Your task to perform on an android device: change your default location settings in chrome Image 0: 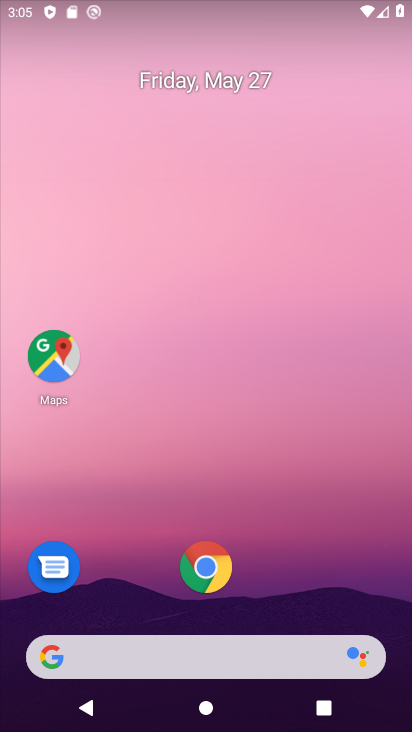
Step 0: click (209, 573)
Your task to perform on an android device: change your default location settings in chrome Image 1: 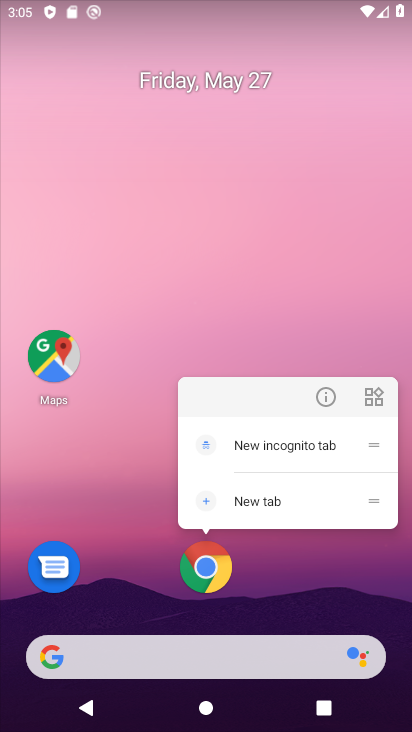
Step 1: click (210, 569)
Your task to perform on an android device: change your default location settings in chrome Image 2: 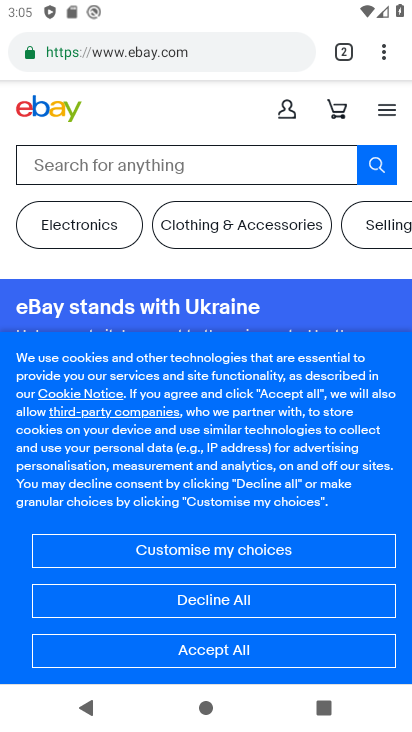
Step 2: drag from (387, 44) to (201, 622)
Your task to perform on an android device: change your default location settings in chrome Image 3: 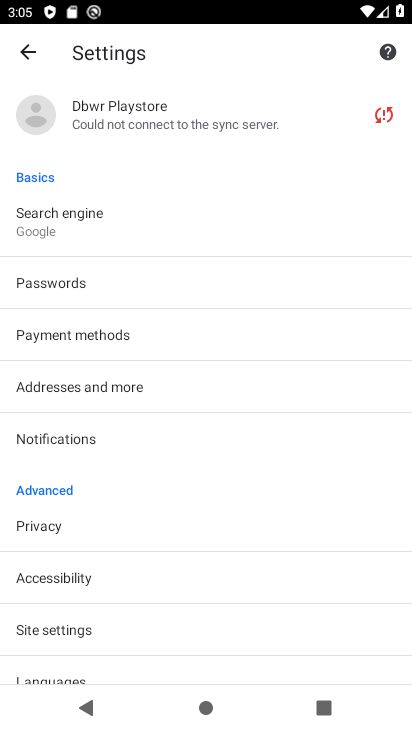
Step 3: drag from (127, 648) to (214, 267)
Your task to perform on an android device: change your default location settings in chrome Image 4: 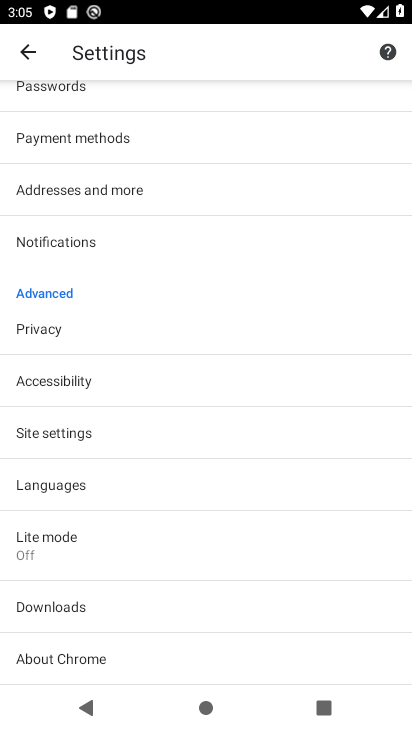
Step 4: click (84, 427)
Your task to perform on an android device: change your default location settings in chrome Image 5: 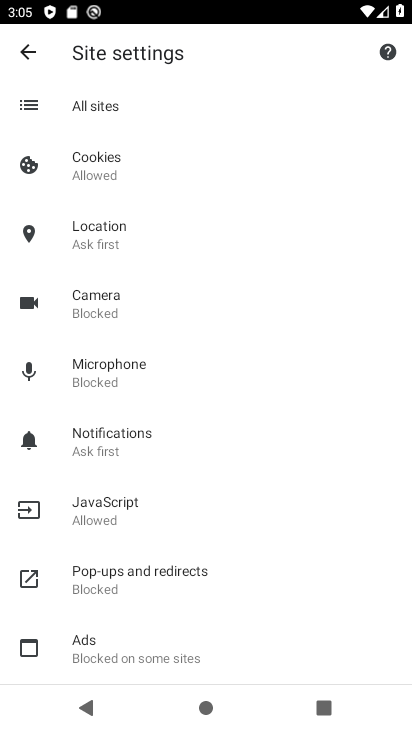
Step 5: click (120, 232)
Your task to perform on an android device: change your default location settings in chrome Image 6: 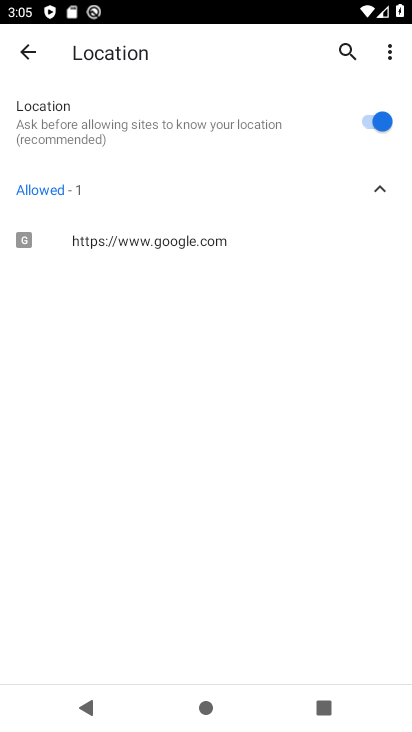
Step 6: click (374, 120)
Your task to perform on an android device: change your default location settings in chrome Image 7: 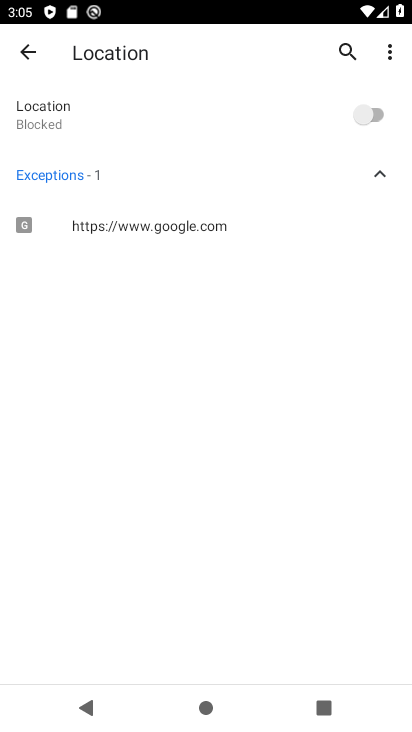
Step 7: task complete